Your task to perform on an android device: toggle improve location accuracy Image 0: 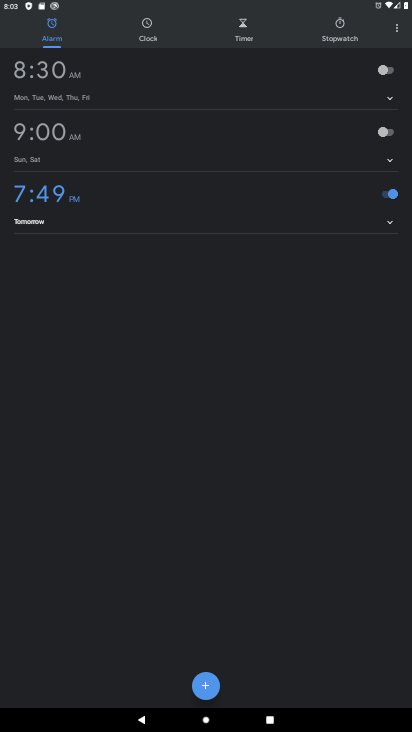
Step 0: press home button
Your task to perform on an android device: toggle improve location accuracy Image 1: 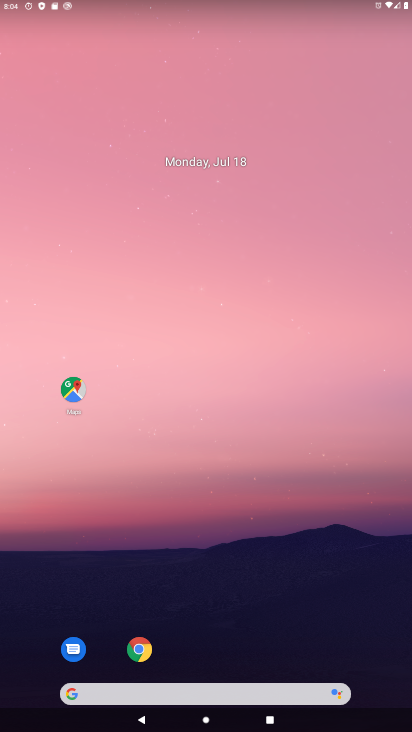
Step 1: drag from (266, 462) to (267, 113)
Your task to perform on an android device: toggle improve location accuracy Image 2: 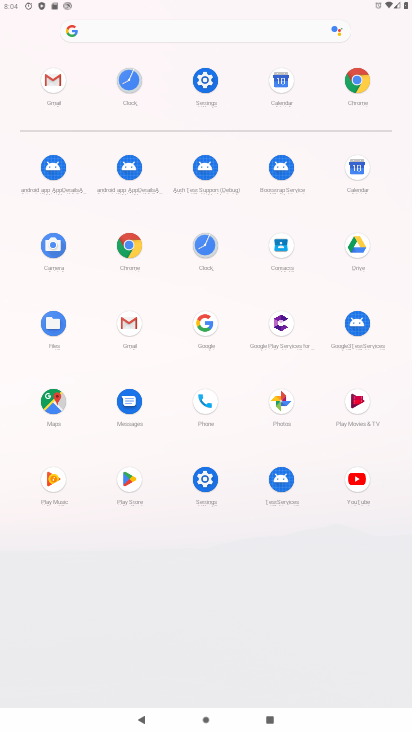
Step 2: click (208, 76)
Your task to perform on an android device: toggle improve location accuracy Image 3: 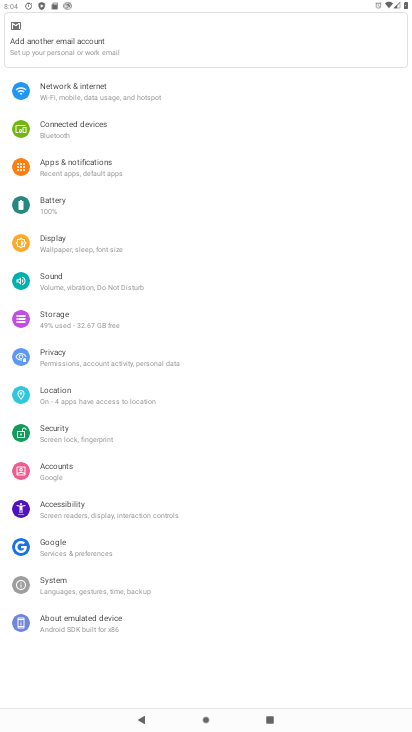
Step 3: click (104, 403)
Your task to perform on an android device: toggle improve location accuracy Image 4: 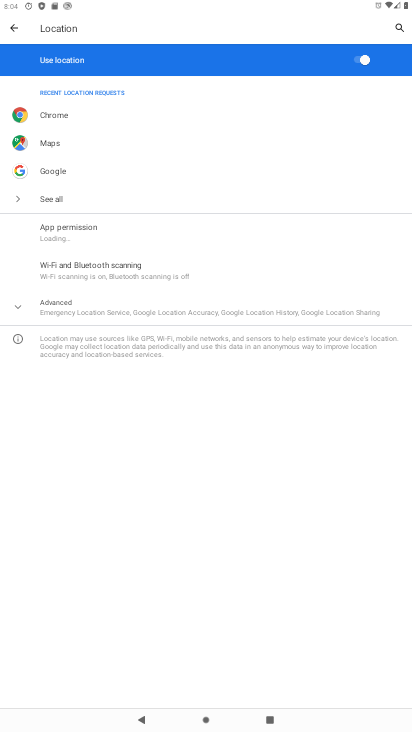
Step 4: click (98, 308)
Your task to perform on an android device: toggle improve location accuracy Image 5: 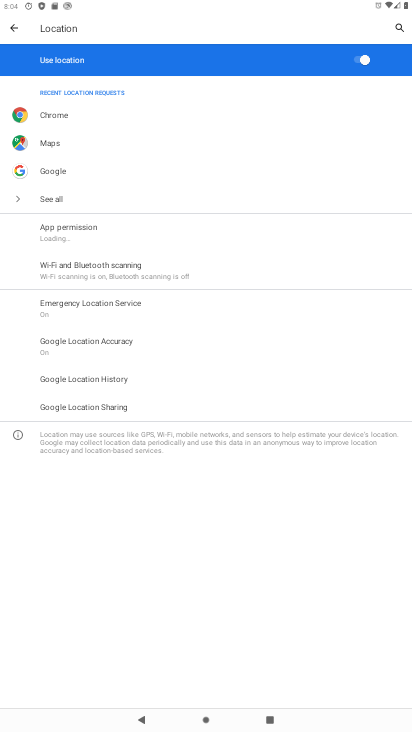
Step 5: click (110, 348)
Your task to perform on an android device: toggle improve location accuracy Image 6: 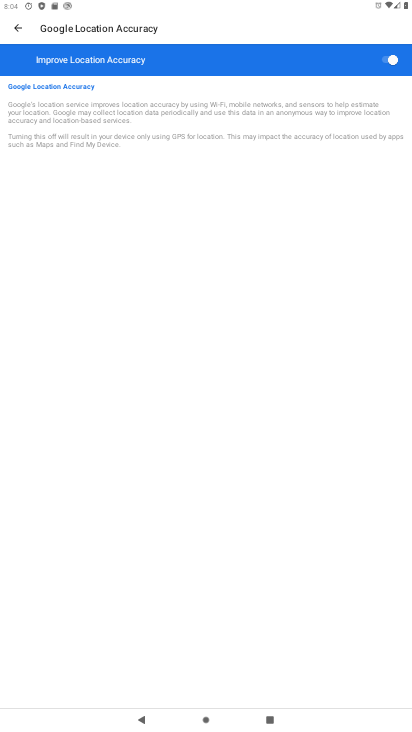
Step 6: click (391, 60)
Your task to perform on an android device: toggle improve location accuracy Image 7: 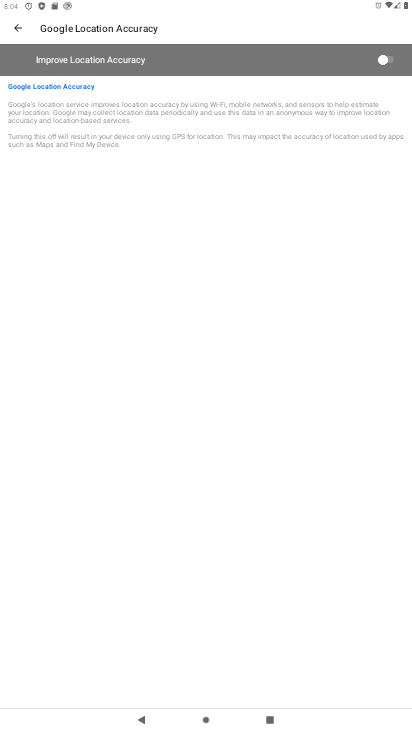
Step 7: task complete